Your task to perform on an android device: toggle sleep mode Image 0: 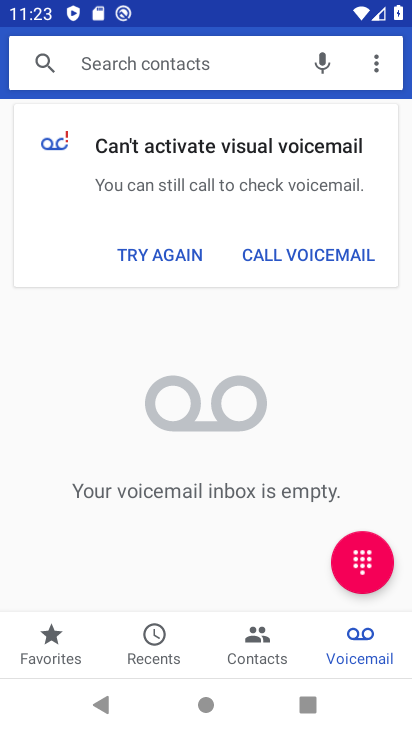
Step 0: press home button
Your task to perform on an android device: toggle sleep mode Image 1: 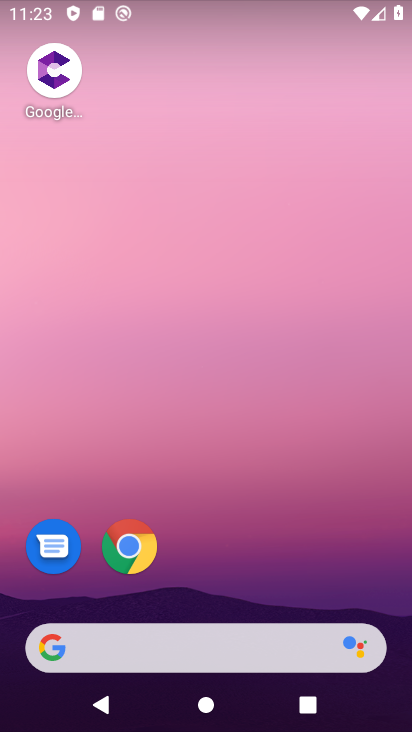
Step 1: drag from (192, 583) to (187, 73)
Your task to perform on an android device: toggle sleep mode Image 2: 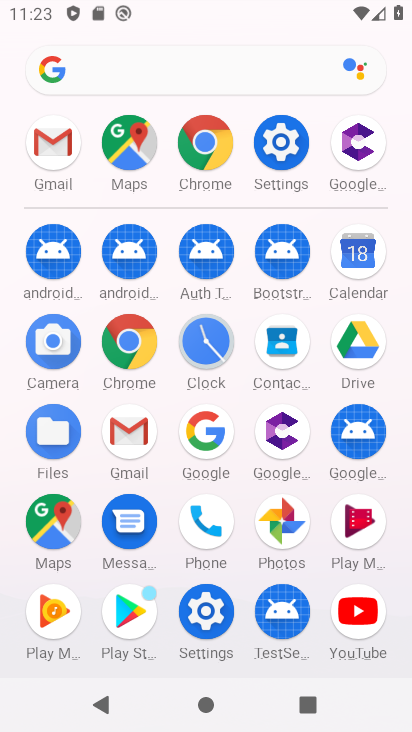
Step 2: click (283, 164)
Your task to perform on an android device: toggle sleep mode Image 3: 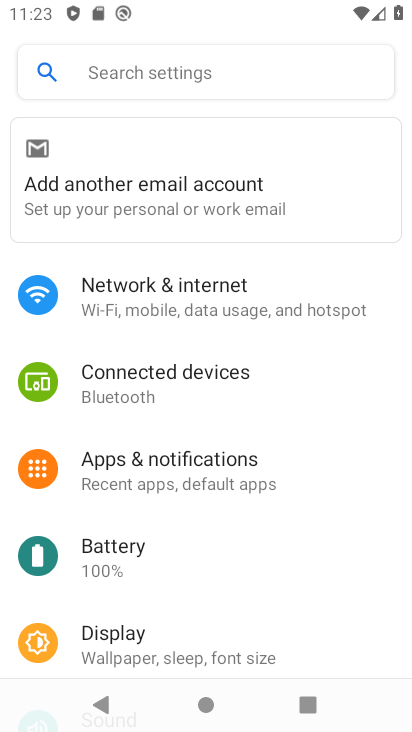
Step 3: drag from (182, 599) to (190, 205)
Your task to perform on an android device: toggle sleep mode Image 4: 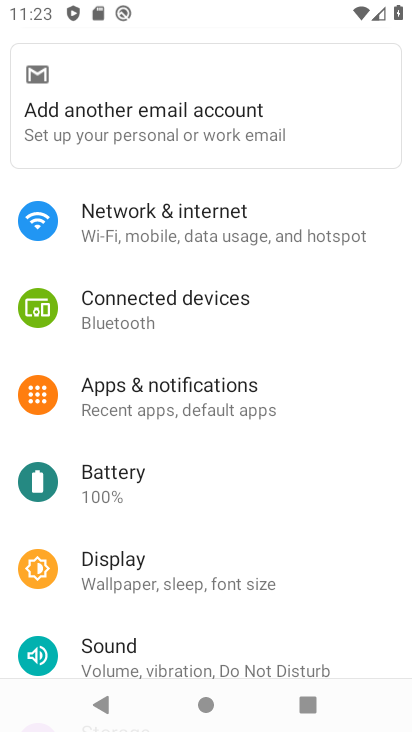
Step 4: click (197, 556)
Your task to perform on an android device: toggle sleep mode Image 5: 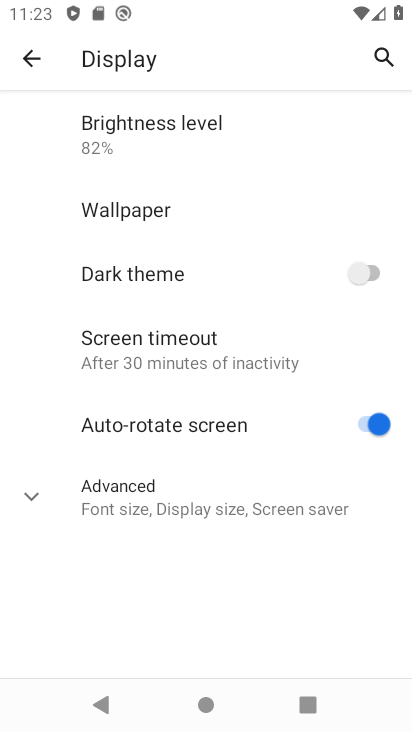
Step 5: click (154, 346)
Your task to perform on an android device: toggle sleep mode Image 6: 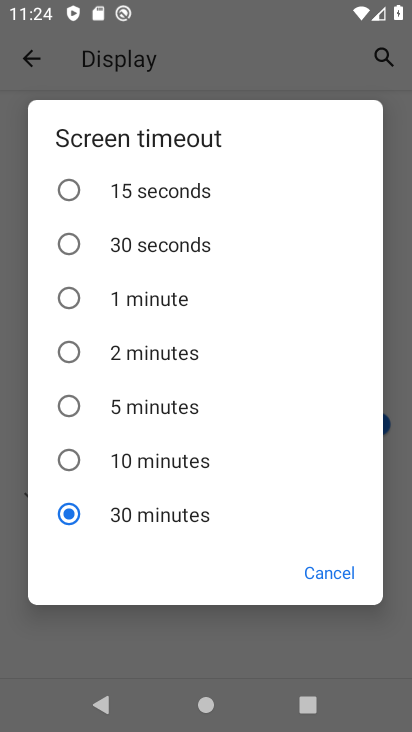
Step 6: click (95, 322)
Your task to perform on an android device: toggle sleep mode Image 7: 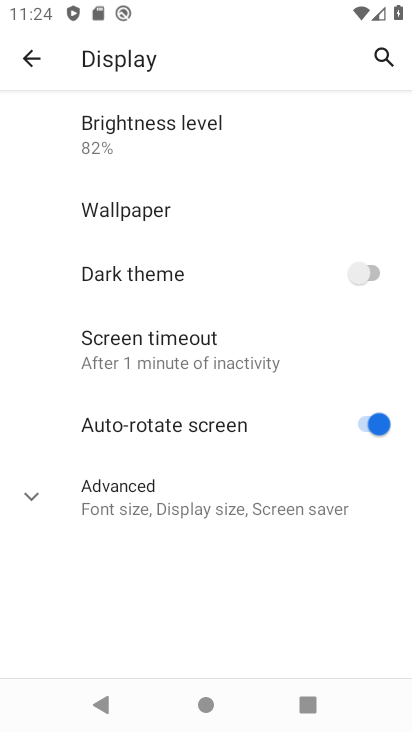
Step 7: task complete